Your task to perform on an android device: toggle improve location accuracy Image 0: 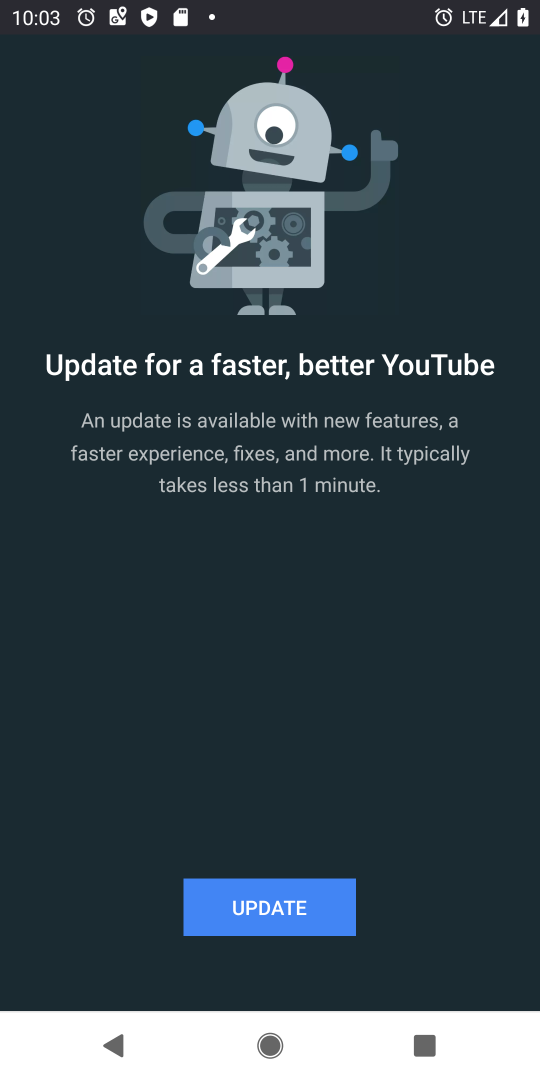
Step 0: press home button
Your task to perform on an android device: toggle improve location accuracy Image 1: 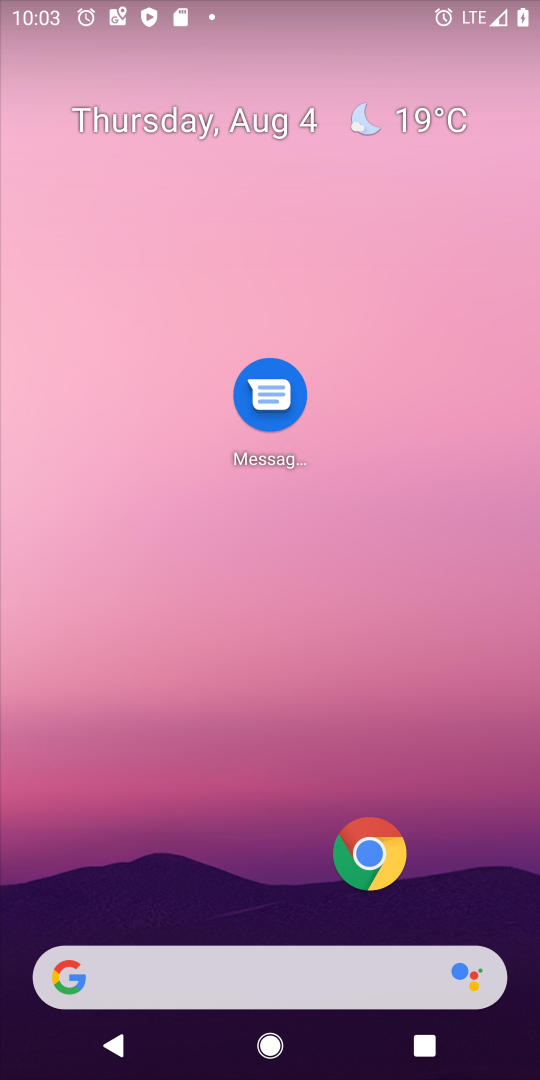
Step 1: drag from (146, 938) to (146, 177)
Your task to perform on an android device: toggle improve location accuracy Image 2: 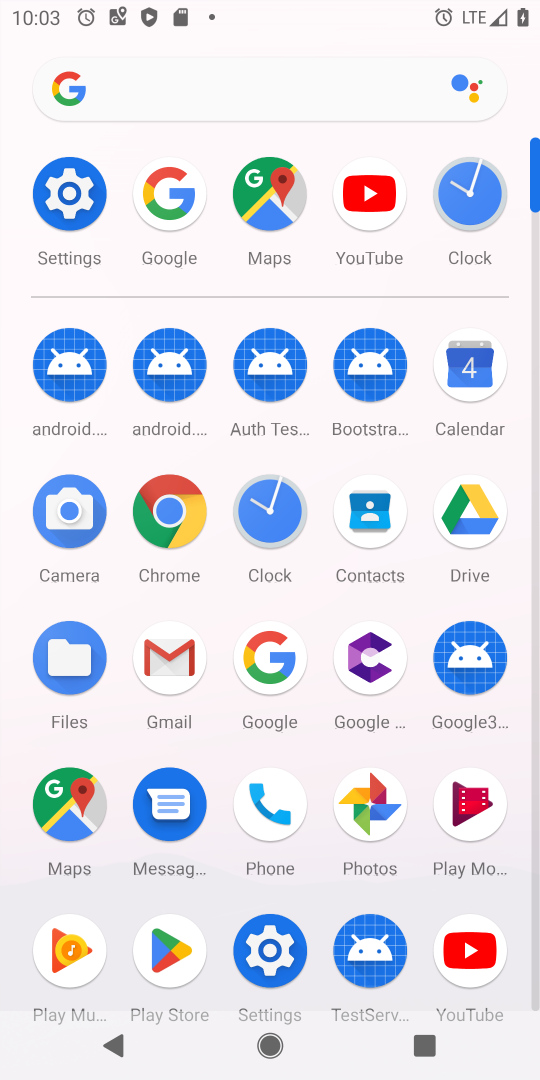
Step 2: click (89, 204)
Your task to perform on an android device: toggle improve location accuracy Image 3: 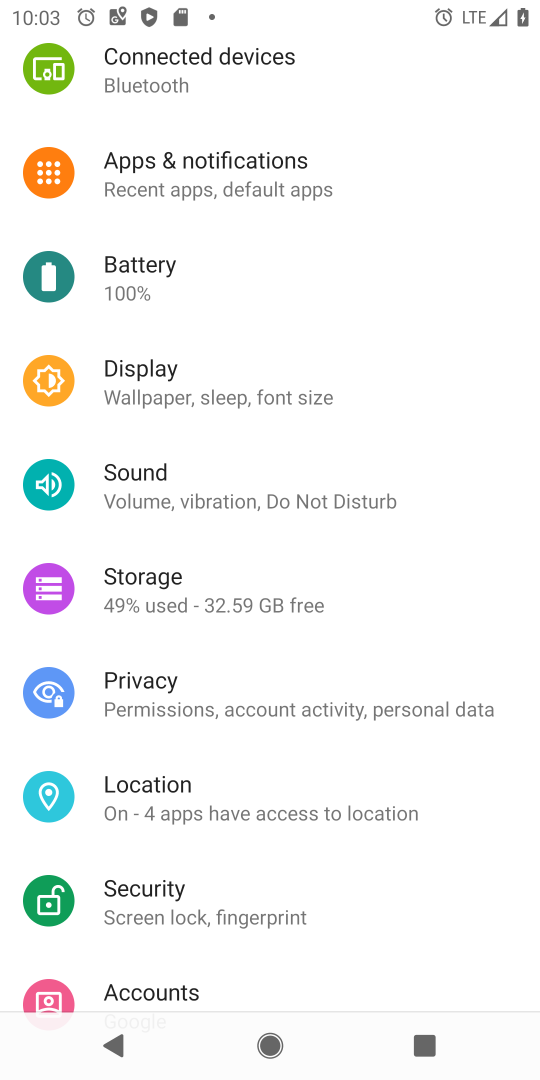
Step 3: click (203, 804)
Your task to perform on an android device: toggle improve location accuracy Image 4: 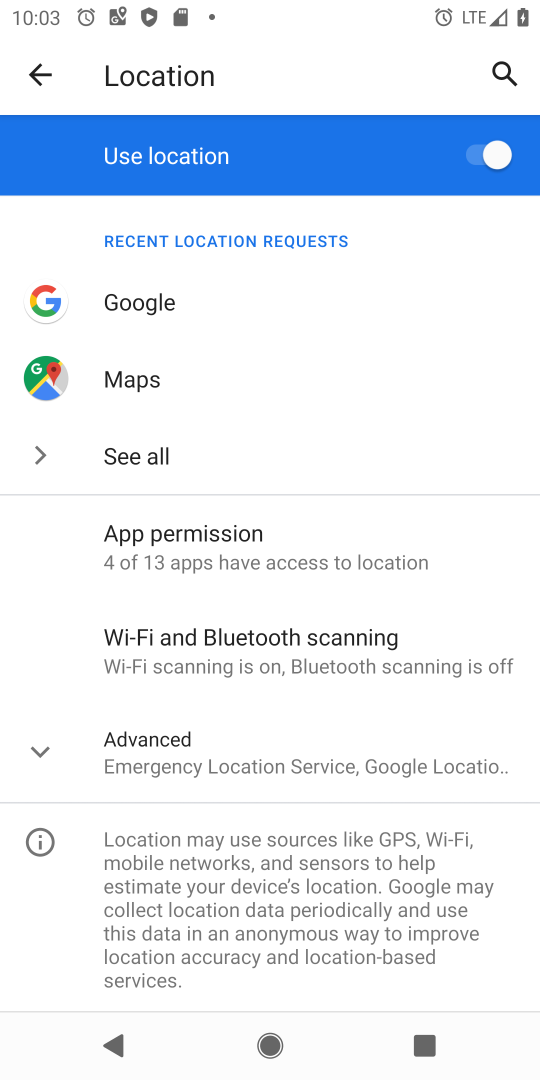
Step 4: click (157, 748)
Your task to perform on an android device: toggle improve location accuracy Image 5: 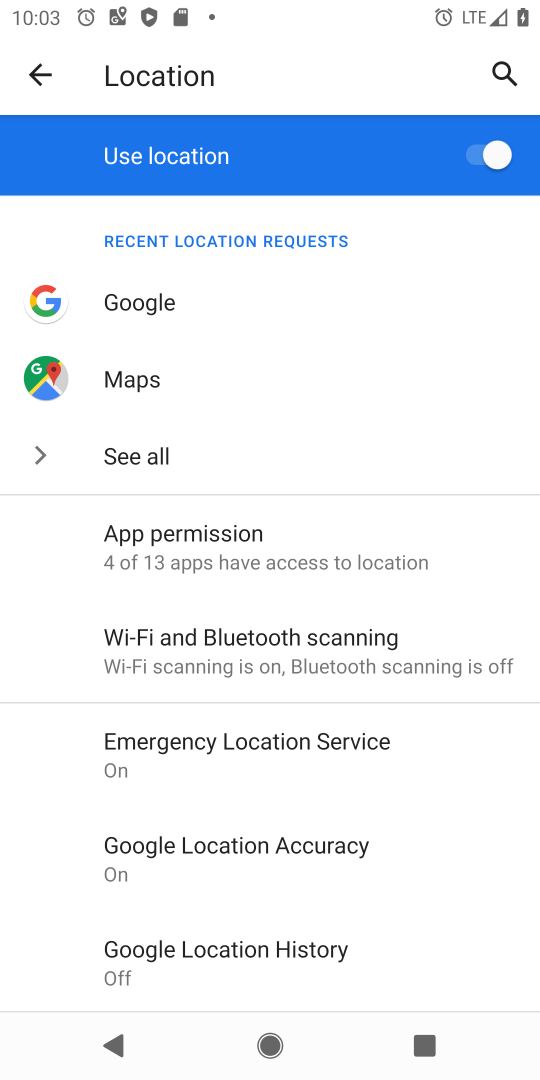
Step 5: click (188, 844)
Your task to perform on an android device: toggle improve location accuracy Image 6: 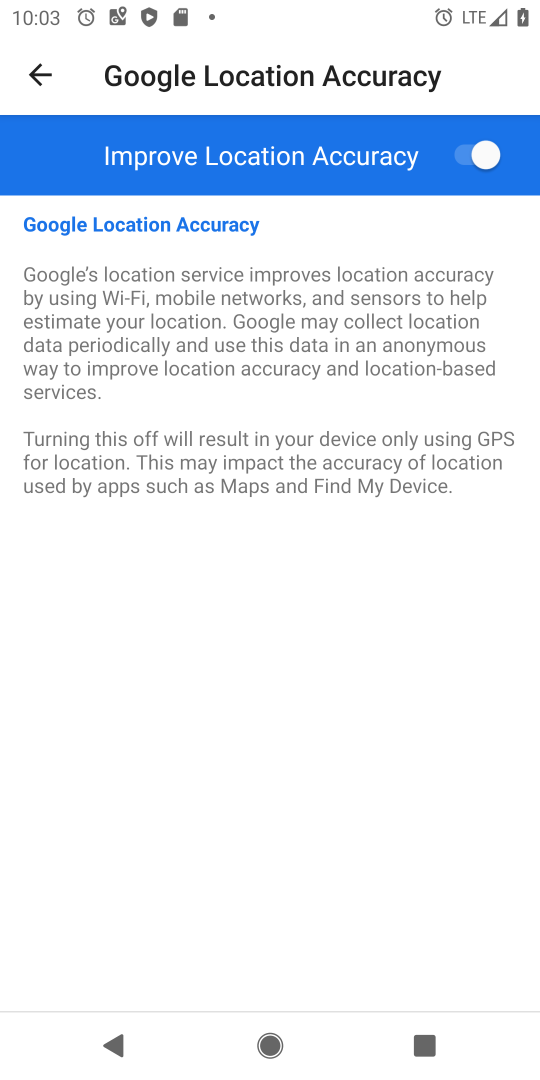
Step 6: click (458, 157)
Your task to perform on an android device: toggle improve location accuracy Image 7: 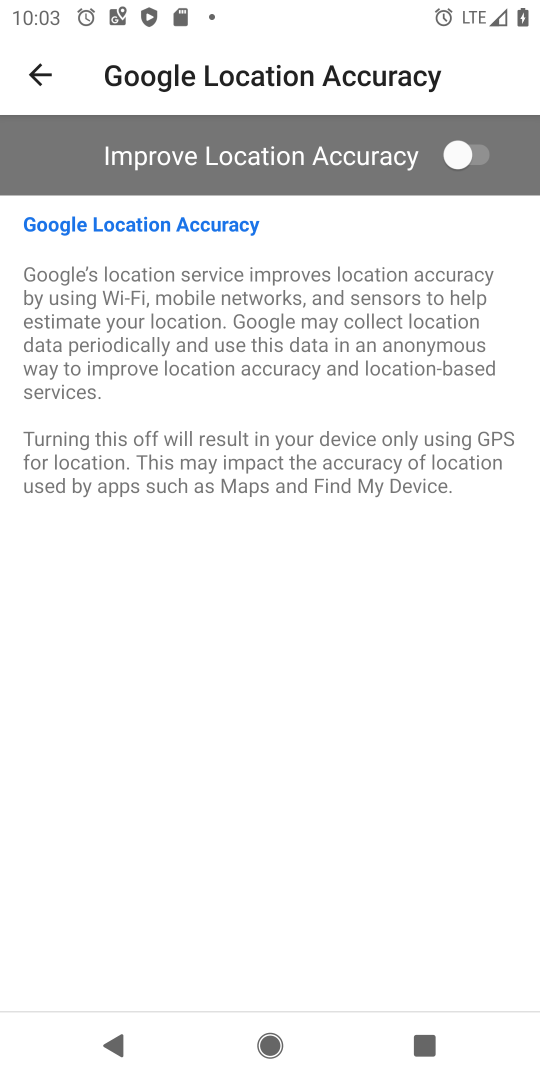
Step 7: task complete